Your task to perform on an android device: Open wifi settings Image 0: 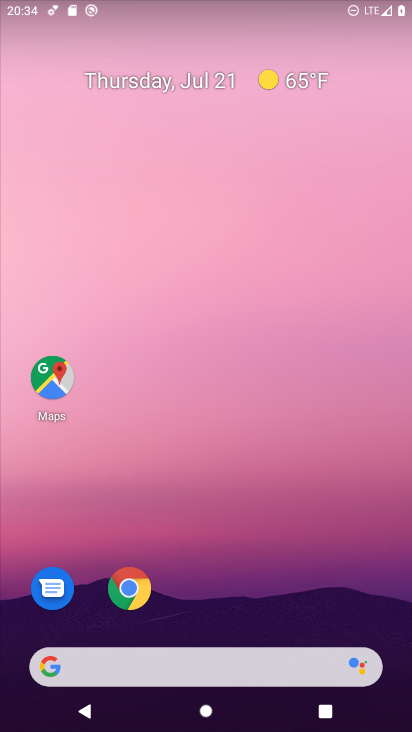
Step 0: drag from (212, 636) to (184, 49)
Your task to perform on an android device: Open wifi settings Image 1: 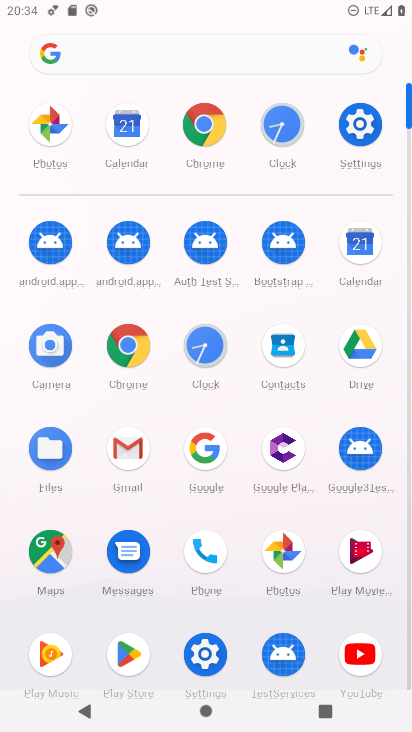
Step 1: click (206, 653)
Your task to perform on an android device: Open wifi settings Image 2: 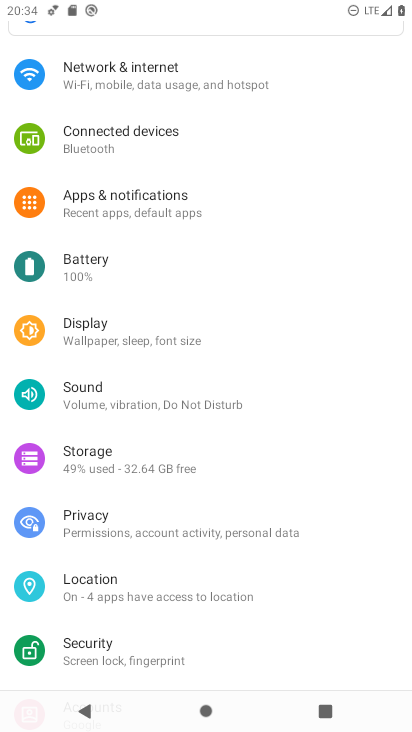
Step 2: click (138, 84)
Your task to perform on an android device: Open wifi settings Image 3: 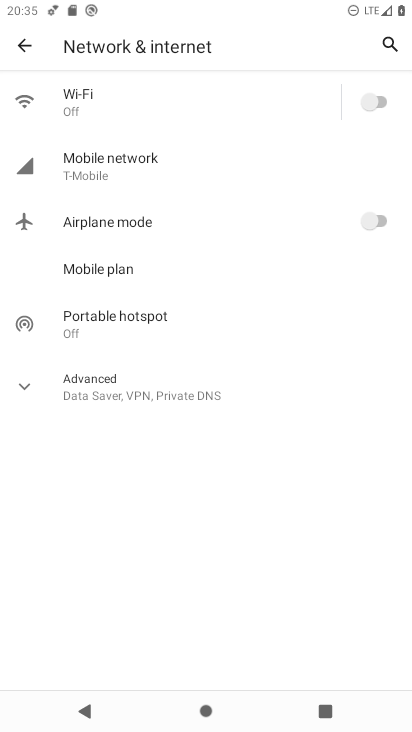
Step 3: click (105, 111)
Your task to perform on an android device: Open wifi settings Image 4: 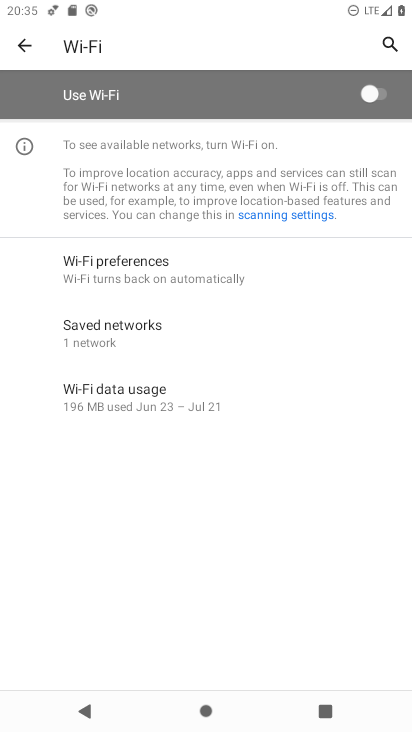
Step 4: task complete